Your task to perform on an android device: open app "Yahoo Mail" (install if not already installed) and go to login screen Image 0: 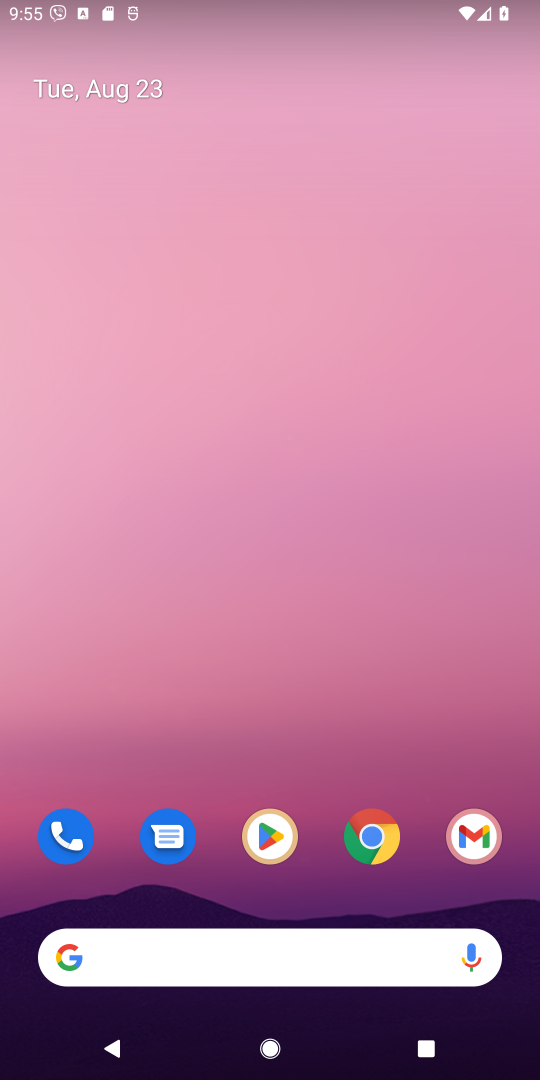
Step 0: click (266, 839)
Your task to perform on an android device: open app "Yahoo Mail" (install if not already installed) and go to login screen Image 1: 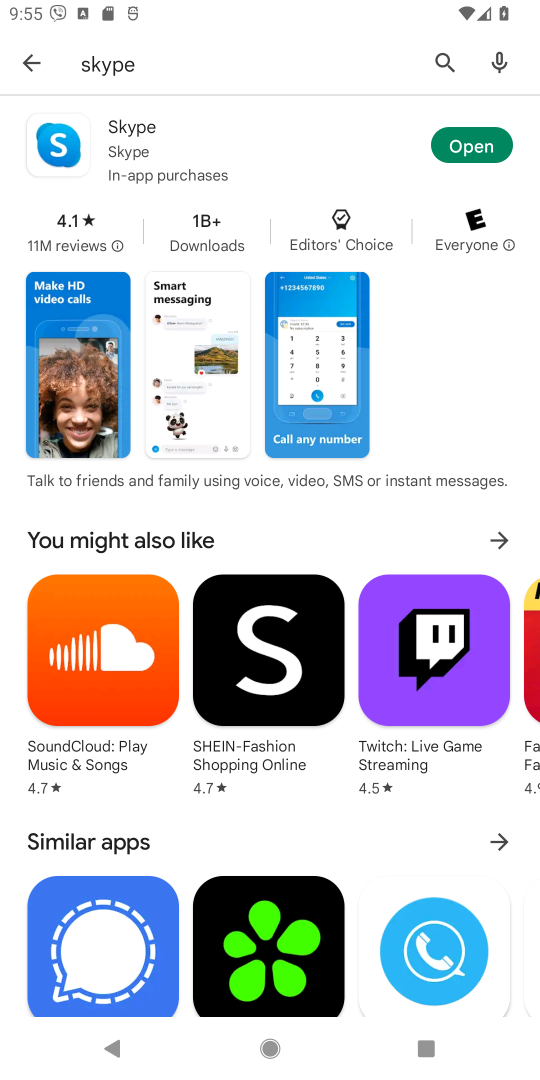
Step 1: click (447, 65)
Your task to perform on an android device: open app "Yahoo Mail" (install if not already installed) and go to login screen Image 2: 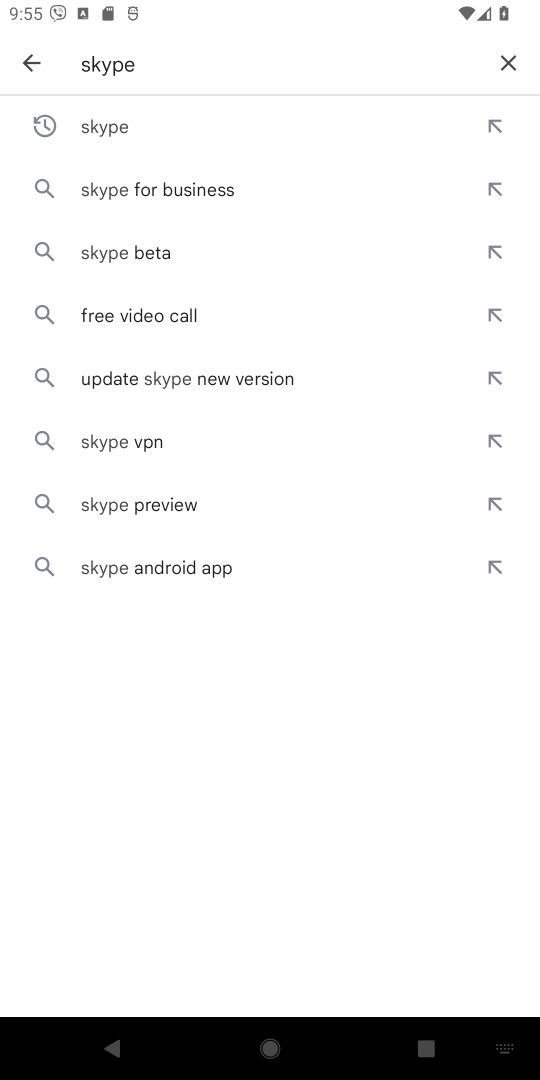
Step 2: click (508, 62)
Your task to perform on an android device: open app "Yahoo Mail" (install if not already installed) and go to login screen Image 3: 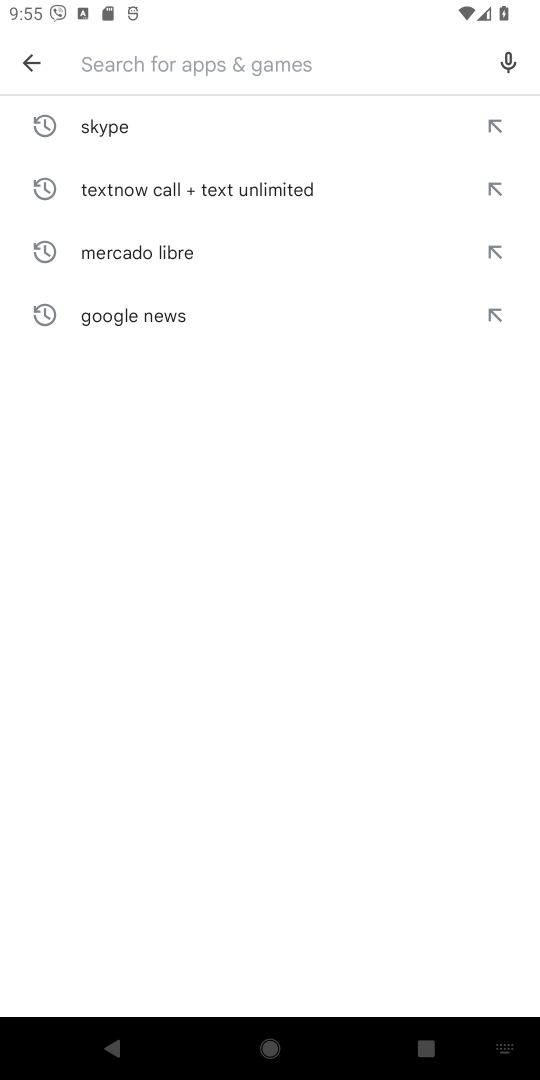
Step 3: type "Yahoo Mail"
Your task to perform on an android device: open app "Yahoo Mail" (install if not already installed) and go to login screen Image 4: 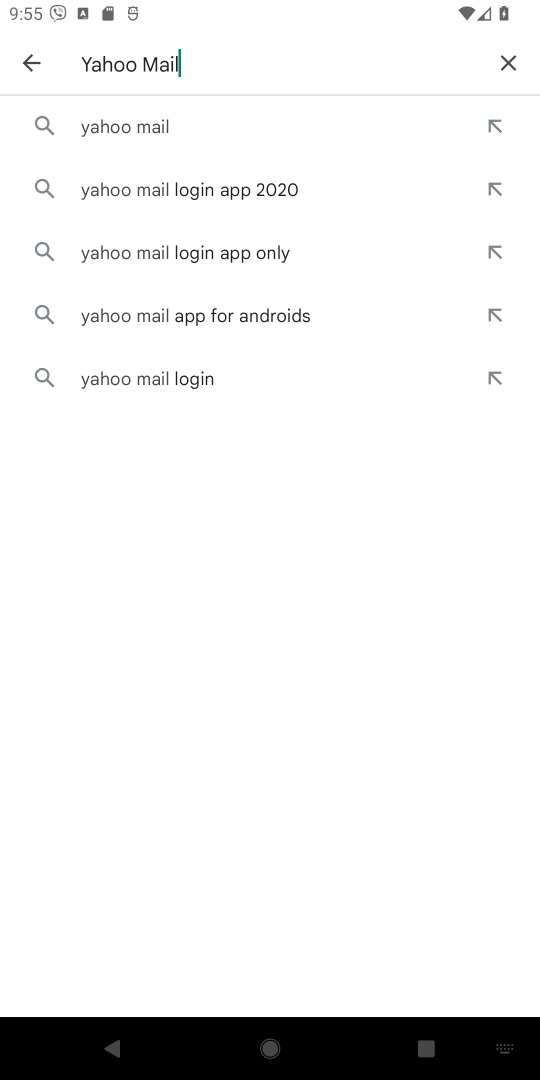
Step 4: click (139, 128)
Your task to perform on an android device: open app "Yahoo Mail" (install if not already installed) and go to login screen Image 5: 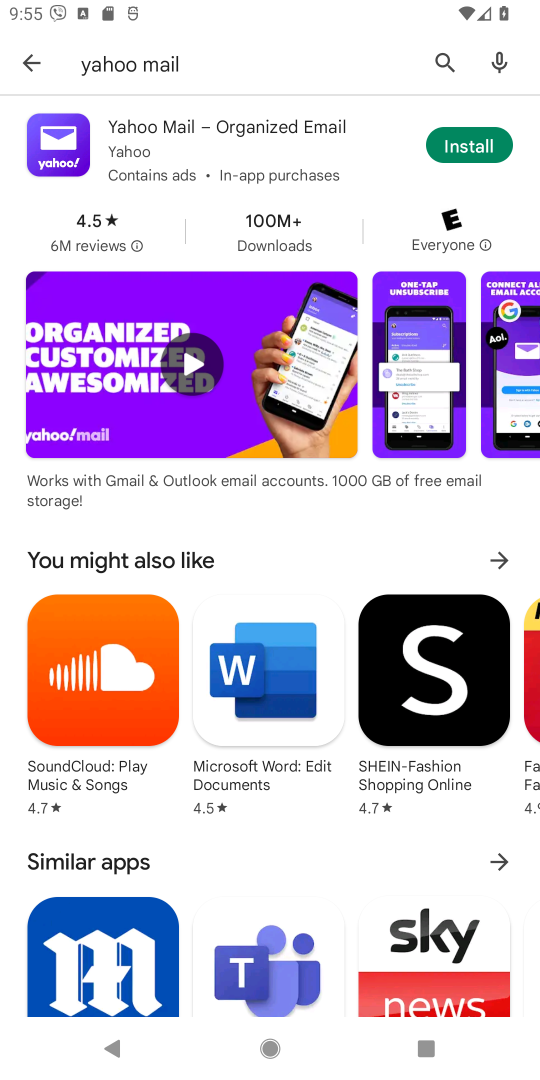
Step 5: click (458, 146)
Your task to perform on an android device: open app "Yahoo Mail" (install if not already installed) and go to login screen Image 6: 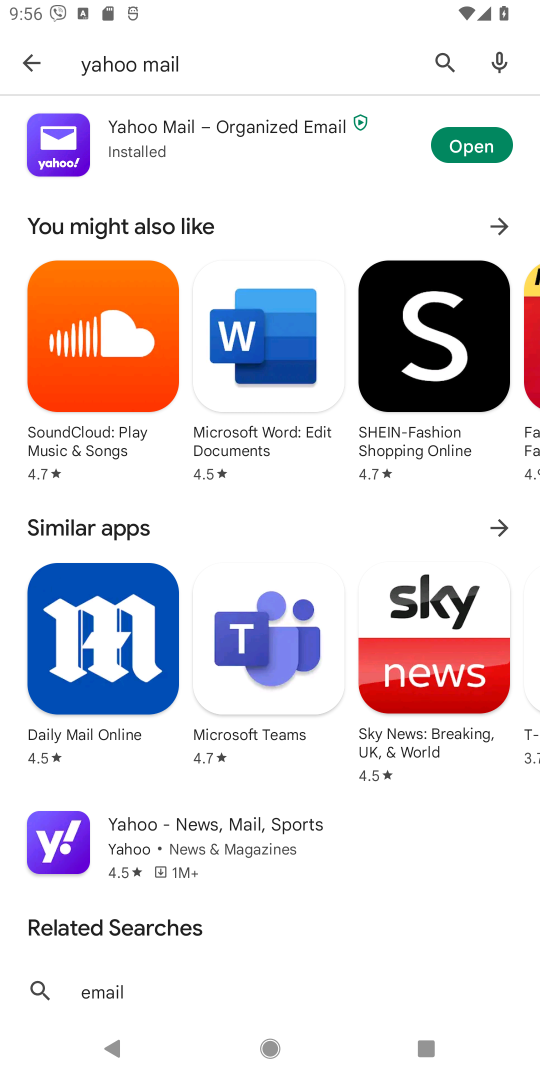
Step 6: click (457, 145)
Your task to perform on an android device: open app "Yahoo Mail" (install if not already installed) and go to login screen Image 7: 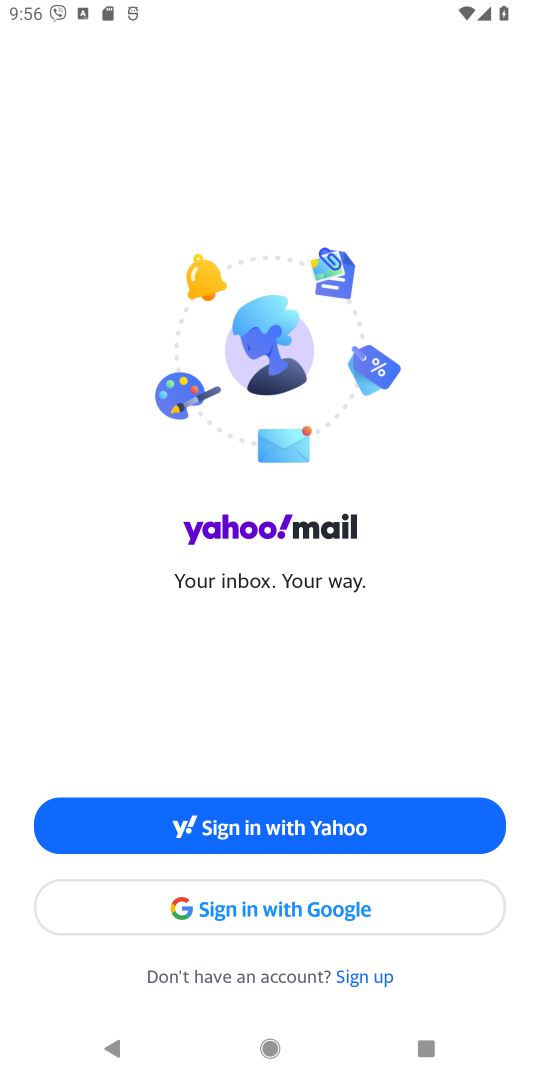
Step 7: click (373, 971)
Your task to perform on an android device: open app "Yahoo Mail" (install if not already installed) and go to login screen Image 8: 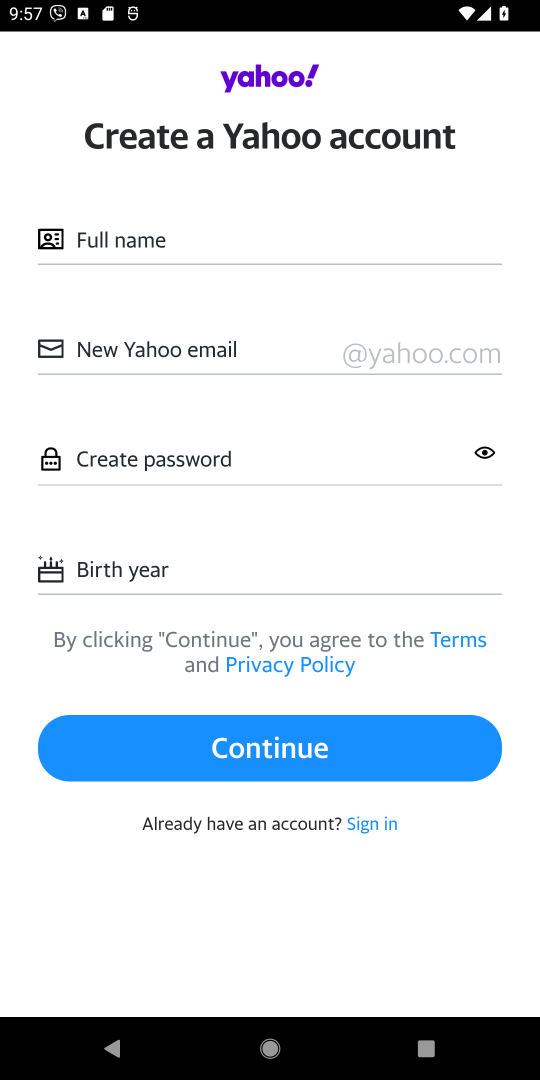
Step 8: task complete